Your task to perform on an android device: What's the weather today? Image 0: 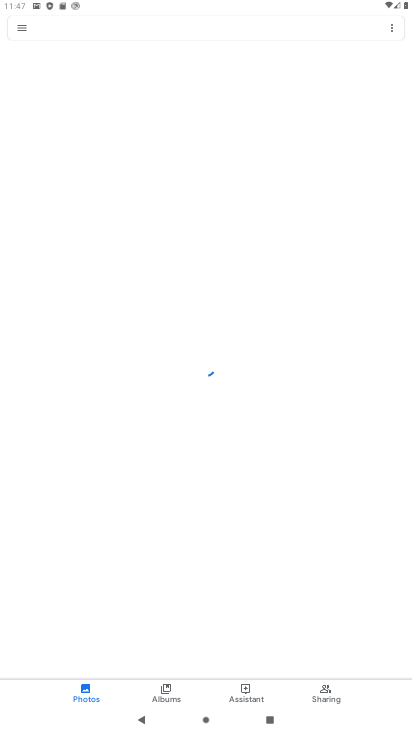
Step 0: press home button
Your task to perform on an android device: What's the weather today? Image 1: 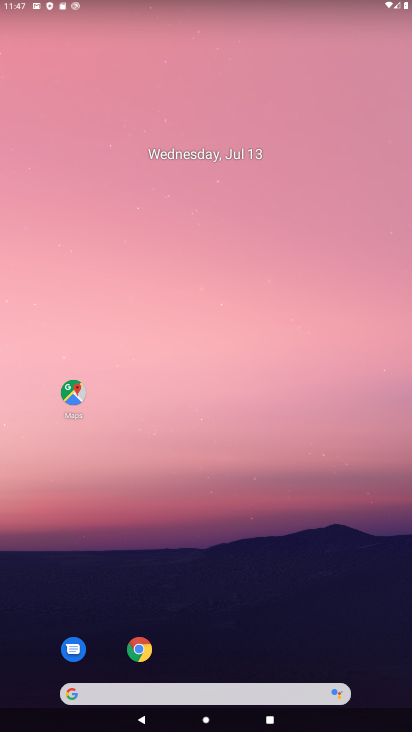
Step 1: click (160, 689)
Your task to perform on an android device: What's the weather today? Image 2: 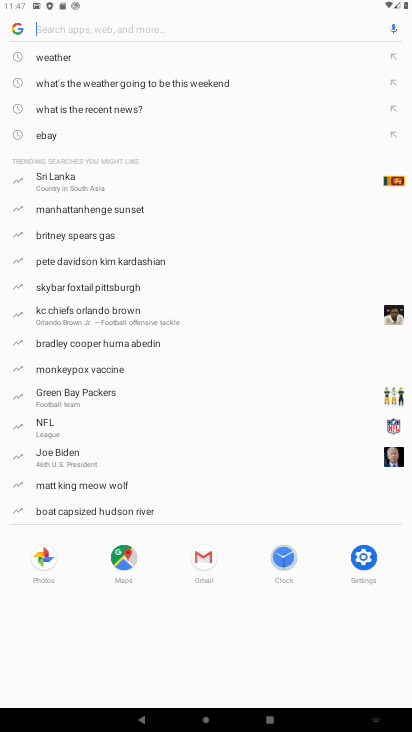
Step 2: type "what's the weather today?"
Your task to perform on an android device: What's the weather today? Image 3: 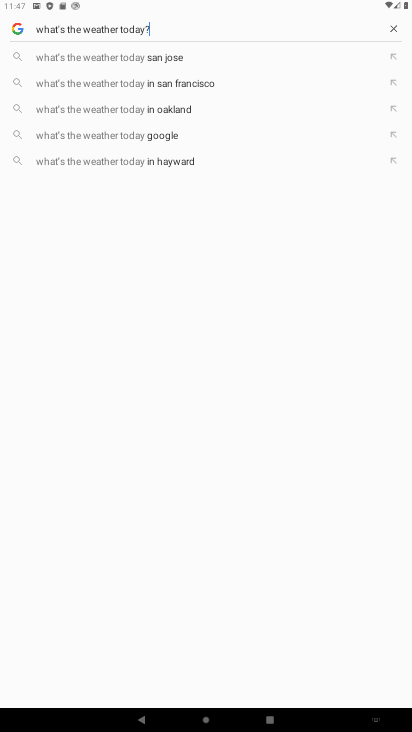
Step 3: click (109, 130)
Your task to perform on an android device: What's the weather today? Image 4: 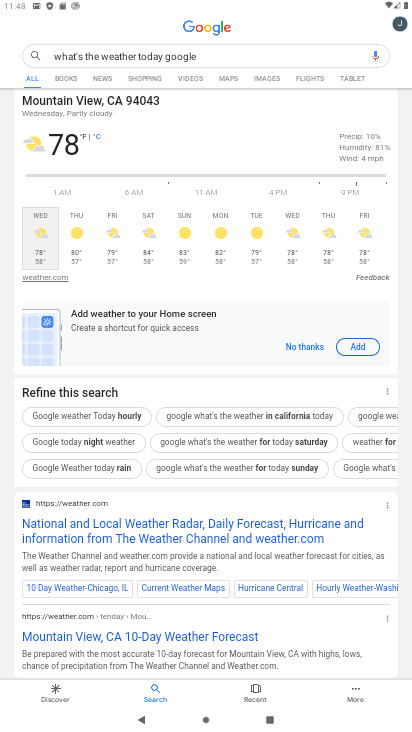
Step 4: task complete